Your task to perform on an android device: Turn off the flashlight Image 0: 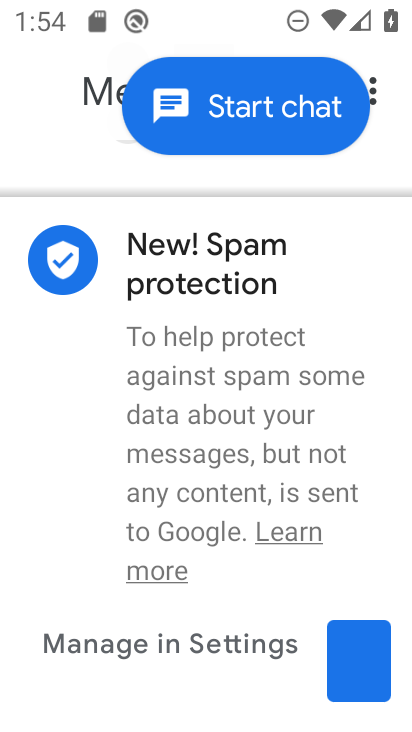
Step 0: press home button
Your task to perform on an android device: Turn off the flashlight Image 1: 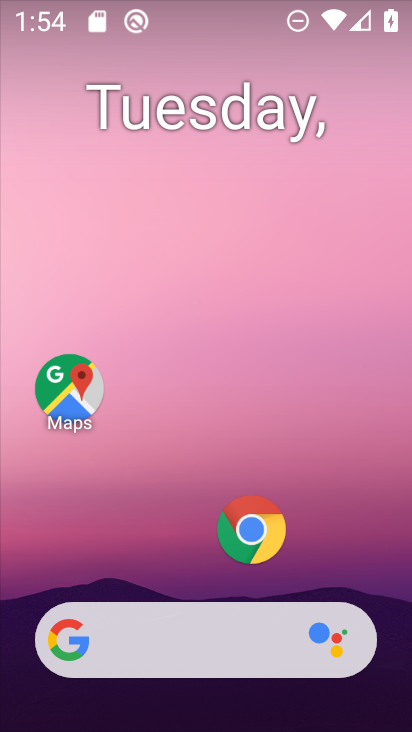
Step 1: drag from (208, 675) to (245, 277)
Your task to perform on an android device: Turn off the flashlight Image 2: 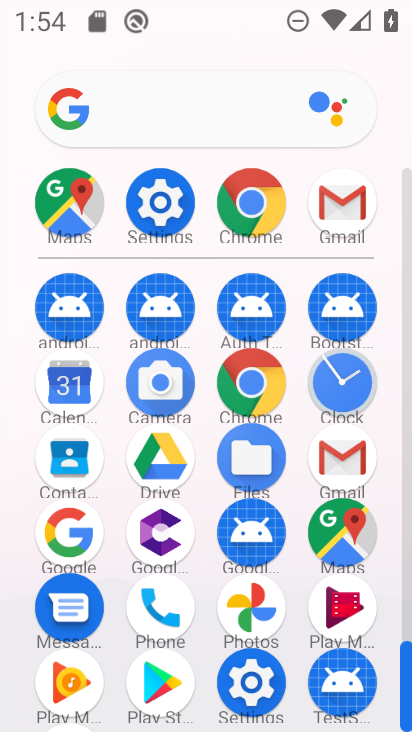
Step 2: click (258, 644)
Your task to perform on an android device: Turn off the flashlight Image 3: 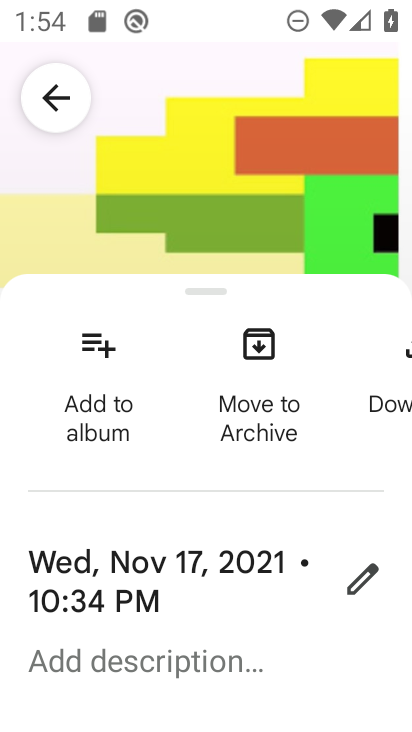
Step 3: press home button
Your task to perform on an android device: Turn off the flashlight Image 4: 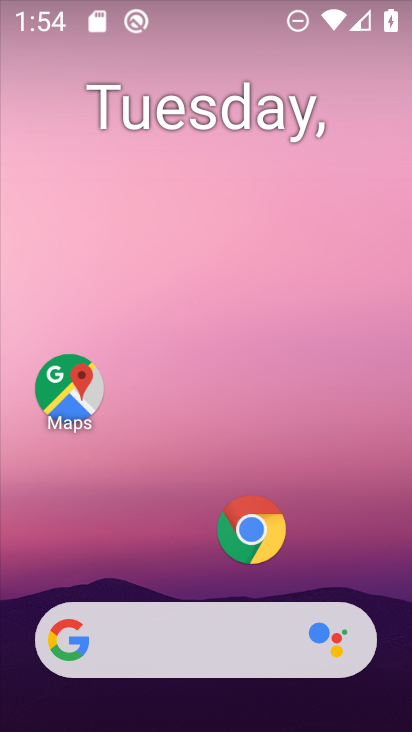
Step 4: drag from (228, 533) to (291, 138)
Your task to perform on an android device: Turn off the flashlight Image 5: 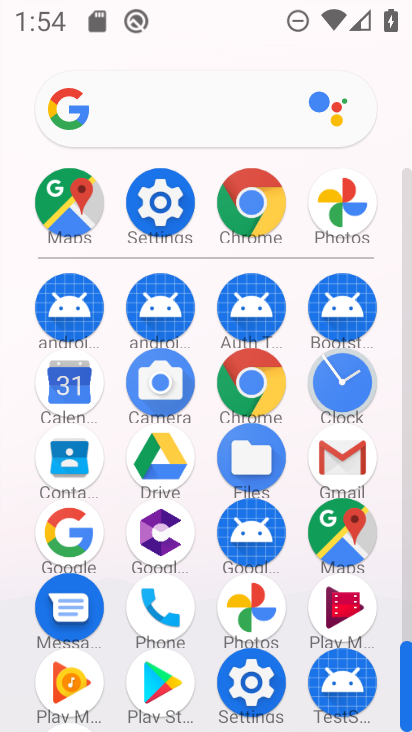
Step 5: click (245, 705)
Your task to perform on an android device: Turn off the flashlight Image 6: 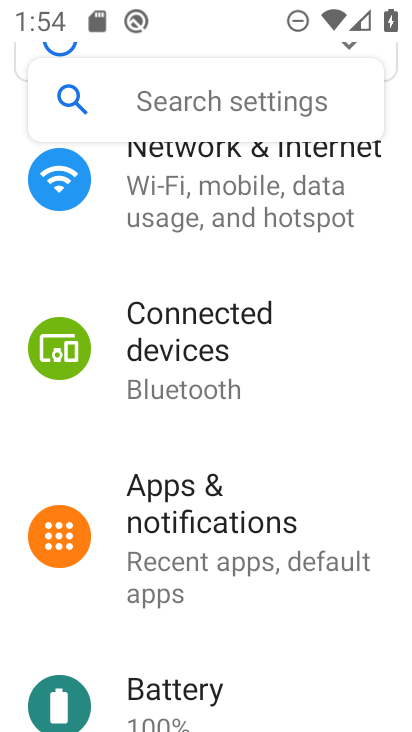
Step 6: drag from (238, 557) to (236, 487)
Your task to perform on an android device: Turn off the flashlight Image 7: 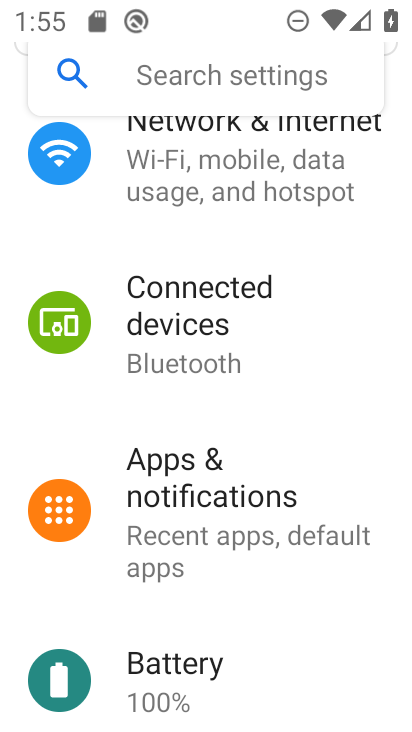
Step 7: click (177, 76)
Your task to perform on an android device: Turn off the flashlight Image 8: 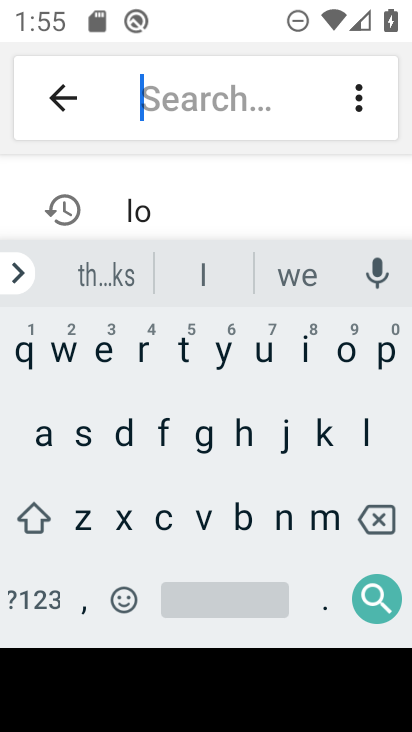
Step 8: click (164, 423)
Your task to perform on an android device: Turn off the flashlight Image 9: 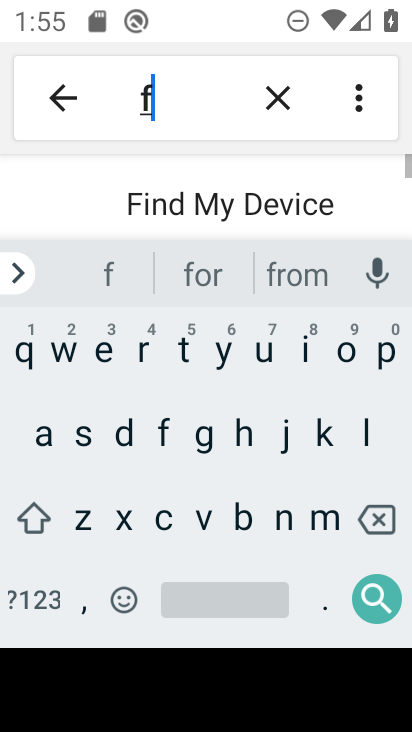
Step 9: click (371, 426)
Your task to perform on an android device: Turn off the flashlight Image 10: 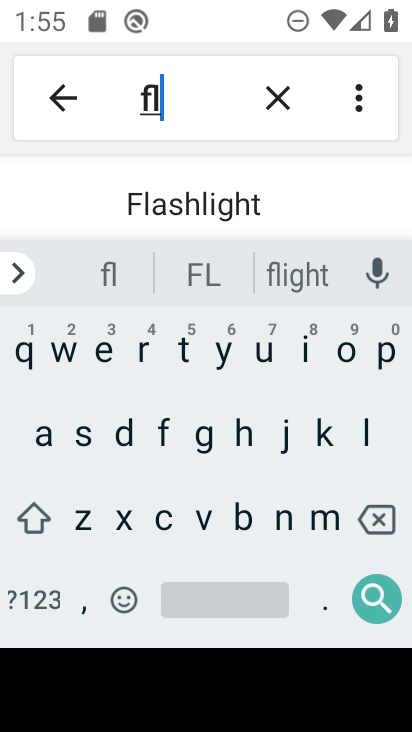
Step 10: click (206, 188)
Your task to perform on an android device: Turn off the flashlight Image 11: 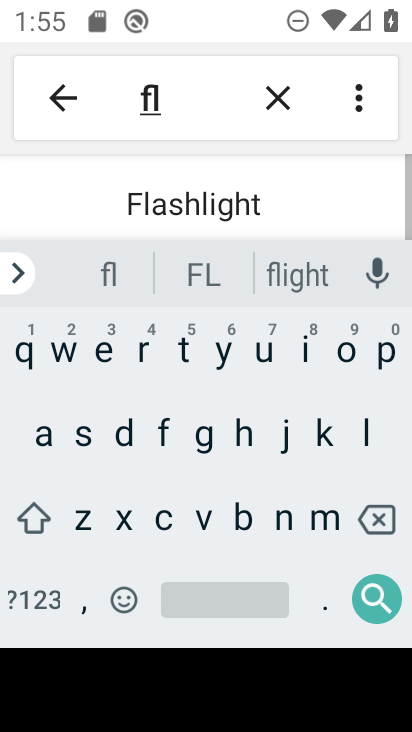
Step 11: task complete